Your task to perform on an android device: Check the weather Image 0: 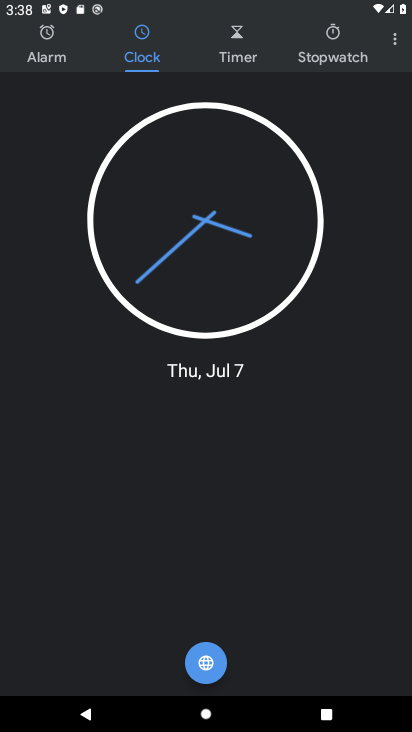
Step 0: press home button
Your task to perform on an android device: Check the weather Image 1: 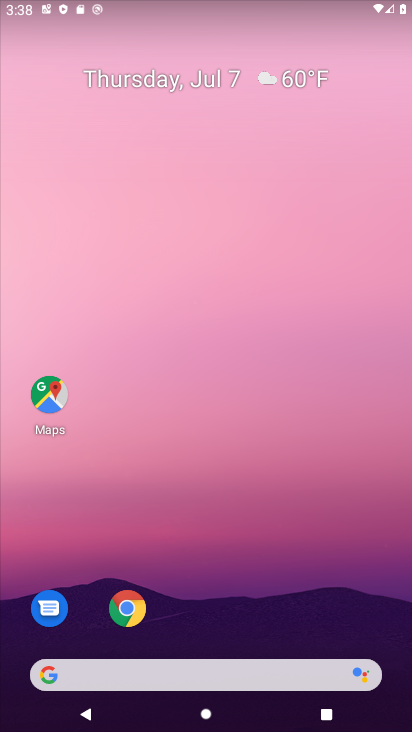
Step 1: press home button
Your task to perform on an android device: Check the weather Image 2: 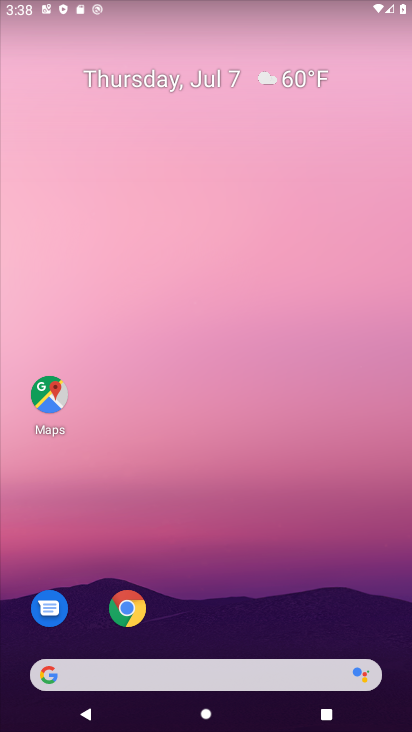
Step 2: click (277, 80)
Your task to perform on an android device: Check the weather Image 3: 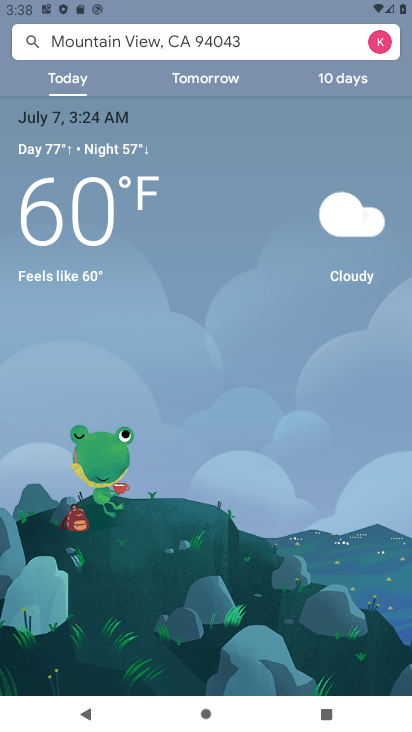
Step 3: task complete